Your task to perform on an android device: Go to wifi settings Image 0: 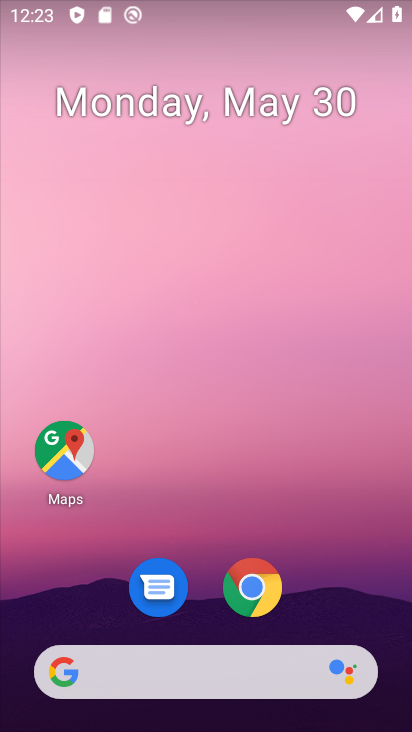
Step 0: drag from (309, 580) to (345, 91)
Your task to perform on an android device: Go to wifi settings Image 1: 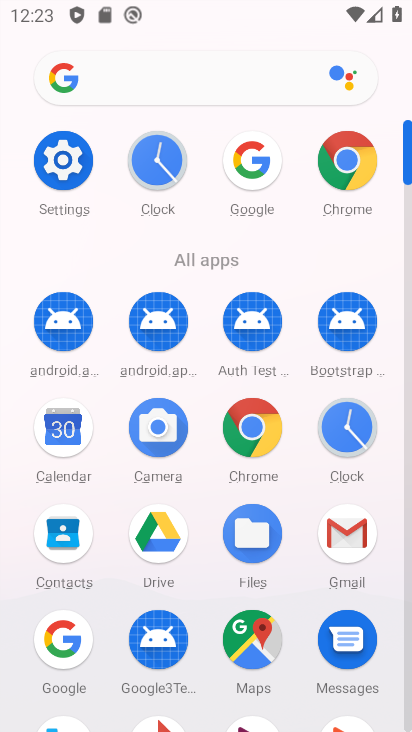
Step 1: click (59, 168)
Your task to perform on an android device: Go to wifi settings Image 2: 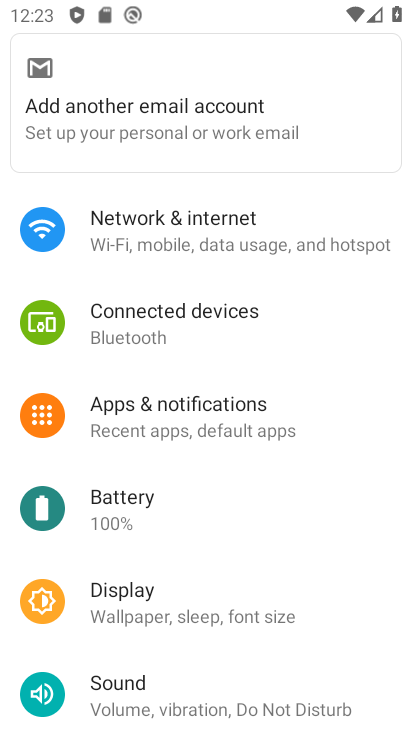
Step 2: click (191, 216)
Your task to perform on an android device: Go to wifi settings Image 3: 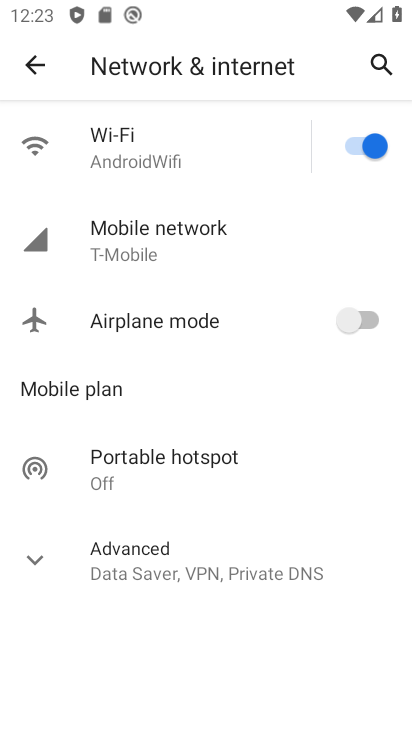
Step 3: click (370, 180)
Your task to perform on an android device: Go to wifi settings Image 4: 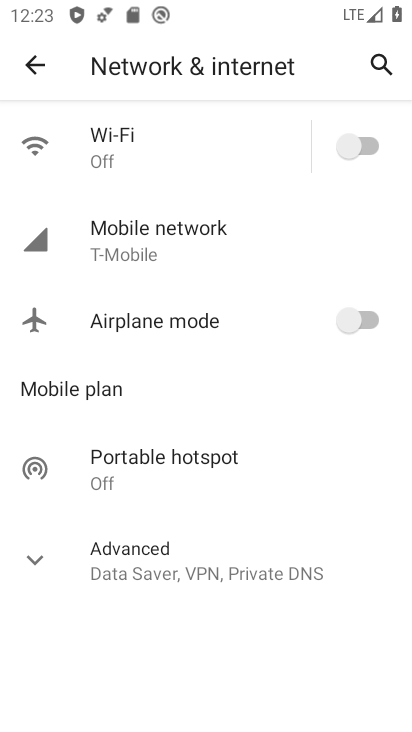
Step 4: task complete